Your task to perform on an android device: Open eBay Image 0: 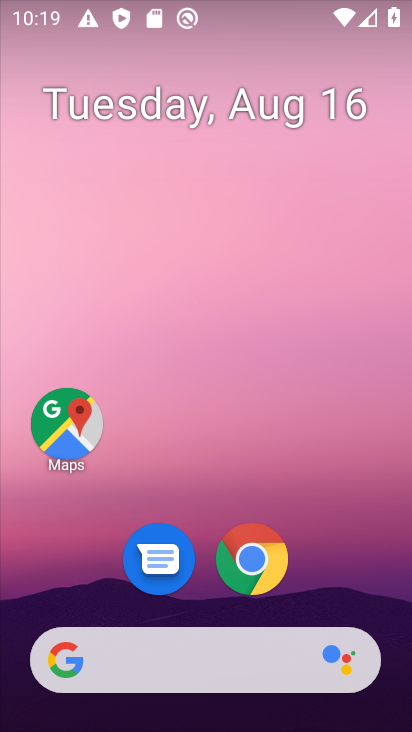
Step 0: click (257, 547)
Your task to perform on an android device: Open eBay Image 1: 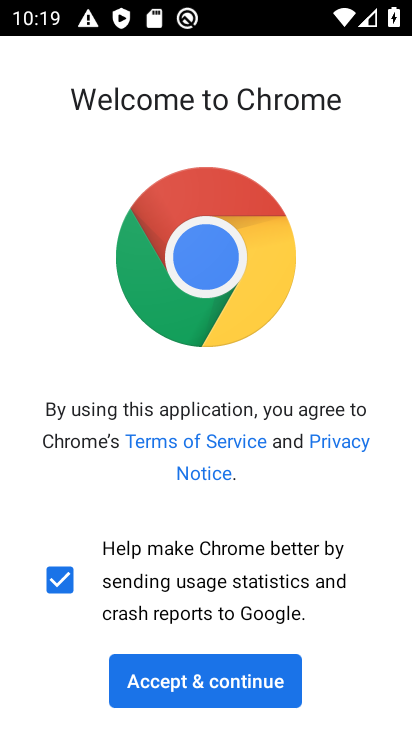
Step 1: click (198, 680)
Your task to perform on an android device: Open eBay Image 2: 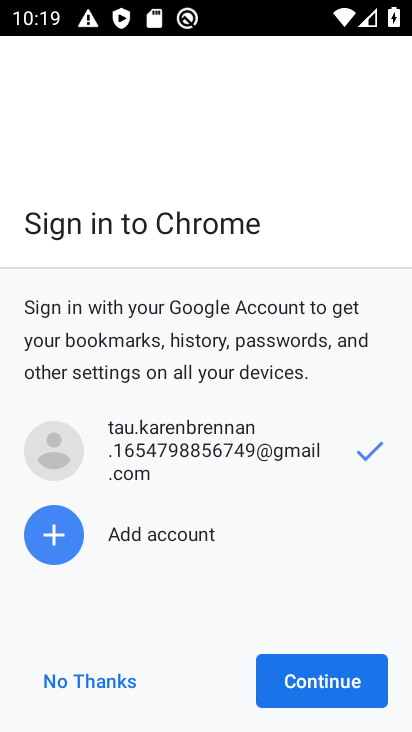
Step 2: click (307, 680)
Your task to perform on an android device: Open eBay Image 3: 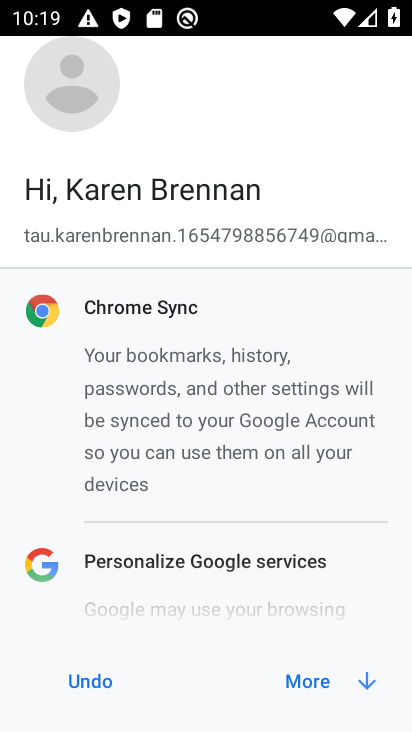
Step 3: click (307, 680)
Your task to perform on an android device: Open eBay Image 4: 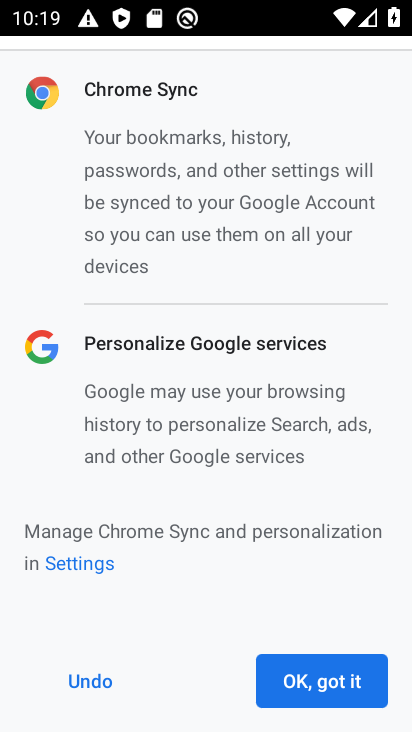
Step 4: click (307, 680)
Your task to perform on an android device: Open eBay Image 5: 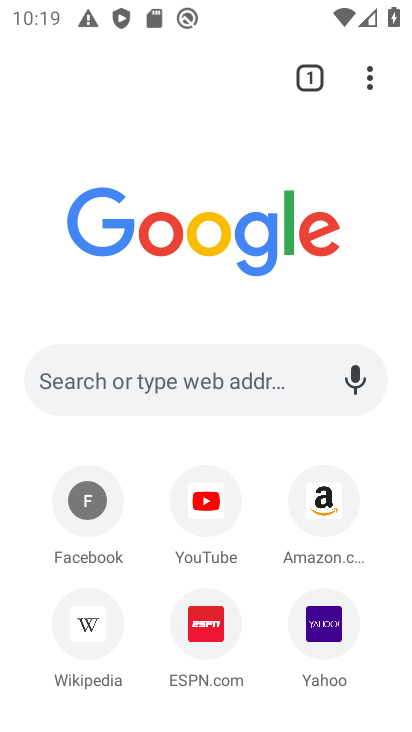
Step 5: click (243, 379)
Your task to perform on an android device: Open eBay Image 6: 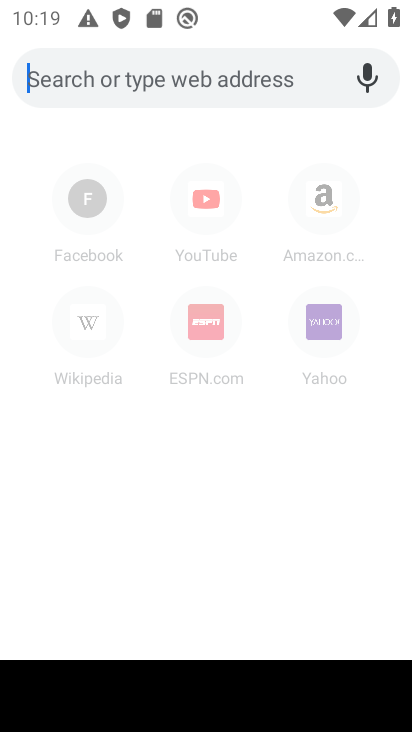
Step 6: type "www.ebay.com"
Your task to perform on an android device: Open eBay Image 7: 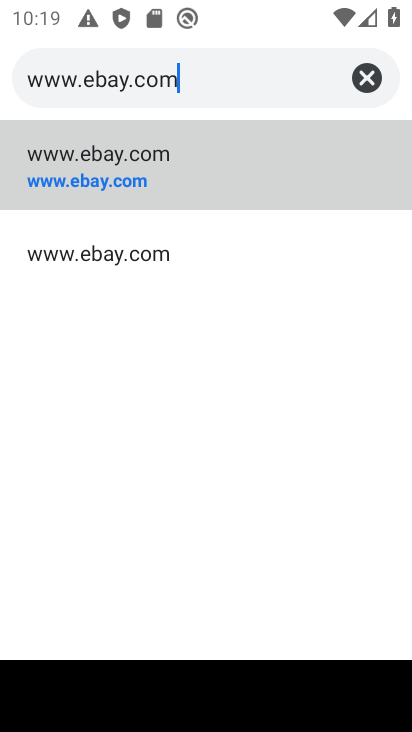
Step 7: click (77, 185)
Your task to perform on an android device: Open eBay Image 8: 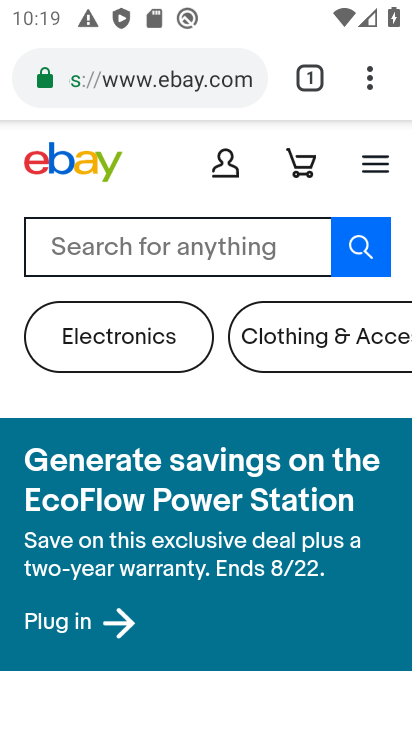
Step 8: task complete